Your task to perform on an android device: remove spam from my inbox in the gmail app Image 0: 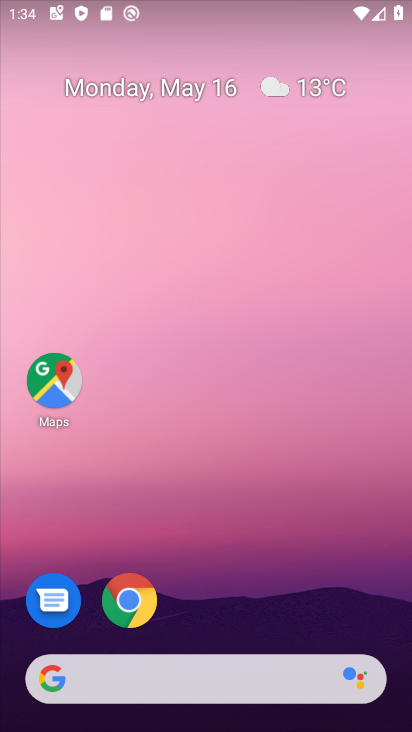
Step 0: drag from (299, 574) to (277, 30)
Your task to perform on an android device: remove spam from my inbox in the gmail app Image 1: 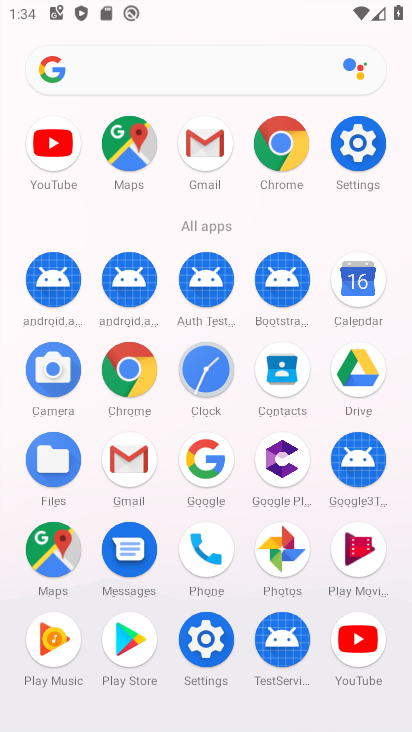
Step 1: click (133, 468)
Your task to perform on an android device: remove spam from my inbox in the gmail app Image 2: 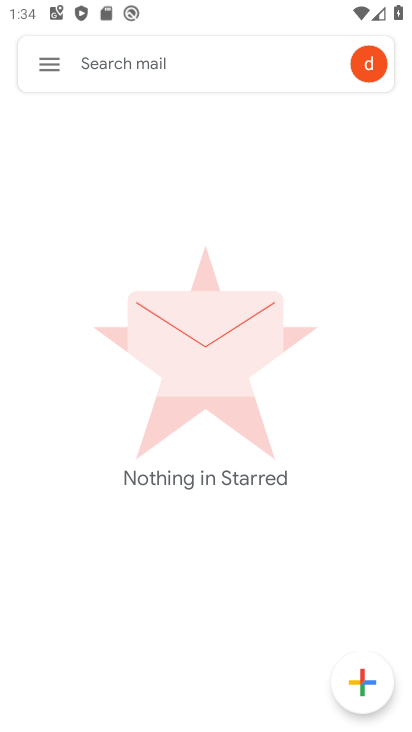
Step 2: click (50, 64)
Your task to perform on an android device: remove spam from my inbox in the gmail app Image 3: 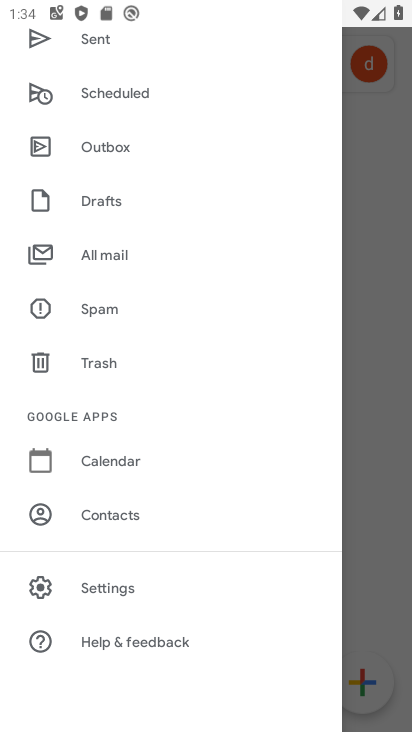
Step 3: click (111, 303)
Your task to perform on an android device: remove spam from my inbox in the gmail app Image 4: 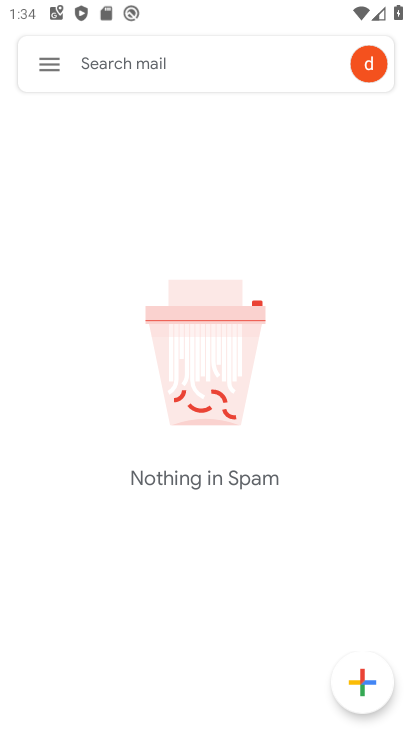
Step 4: task complete